Your task to perform on an android device: see creations saved in the google photos Image 0: 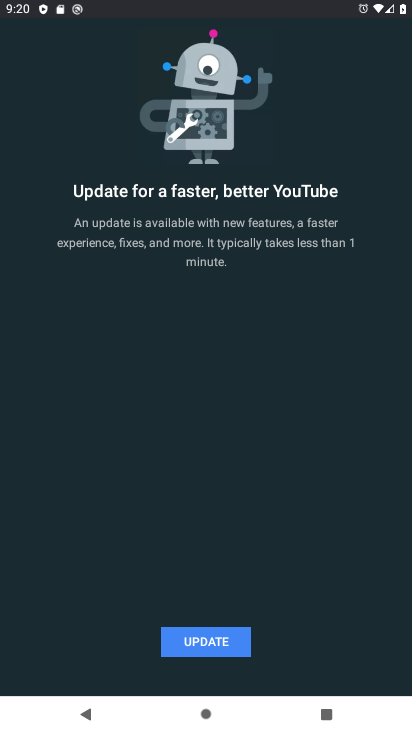
Step 0: press home button
Your task to perform on an android device: see creations saved in the google photos Image 1: 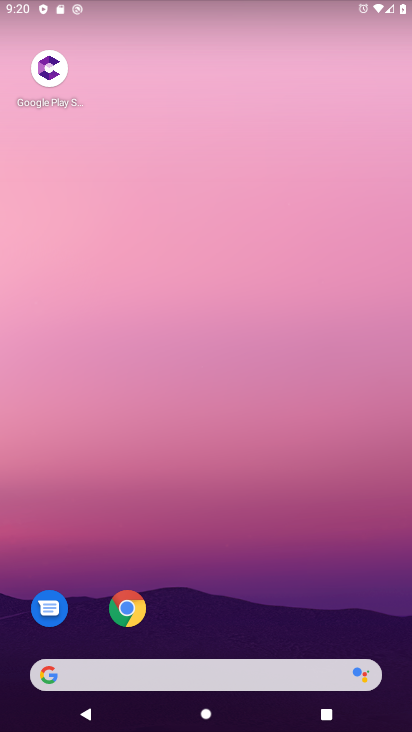
Step 1: drag from (270, 414) to (252, 9)
Your task to perform on an android device: see creations saved in the google photos Image 2: 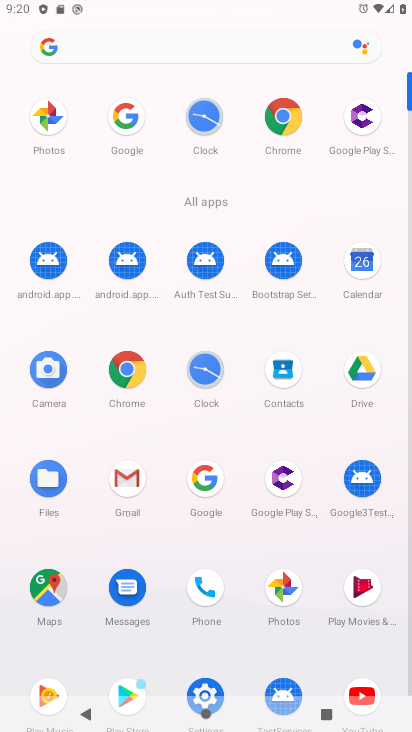
Step 2: click (283, 584)
Your task to perform on an android device: see creations saved in the google photos Image 3: 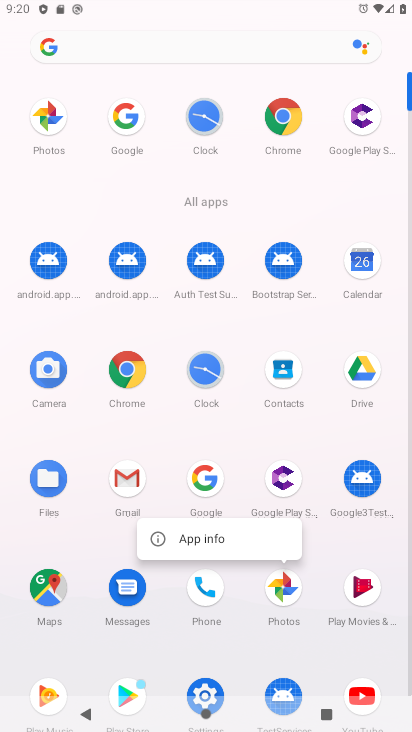
Step 3: click (302, 581)
Your task to perform on an android device: see creations saved in the google photos Image 4: 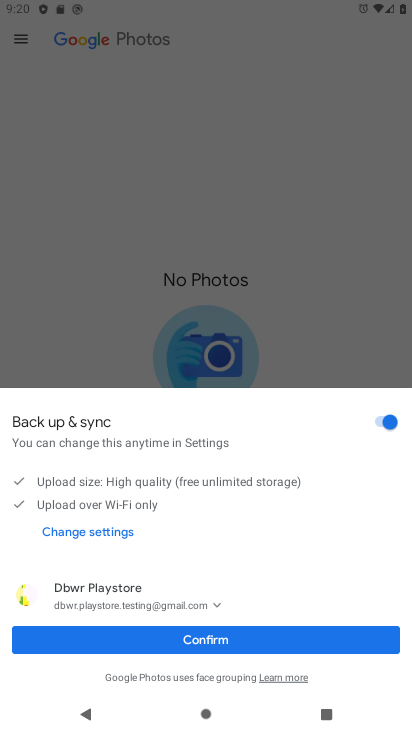
Step 4: click (261, 636)
Your task to perform on an android device: see creations saved in the google photos Image 5: 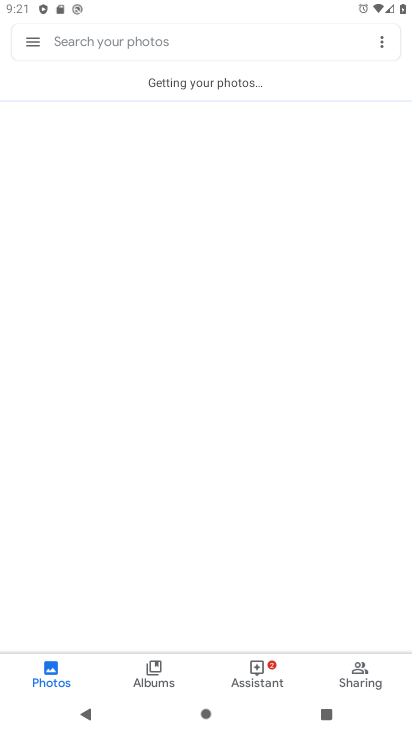
Step 5: click (103, 44)
Your task to perform on an android device: see creations saved in the google photos Image 6: 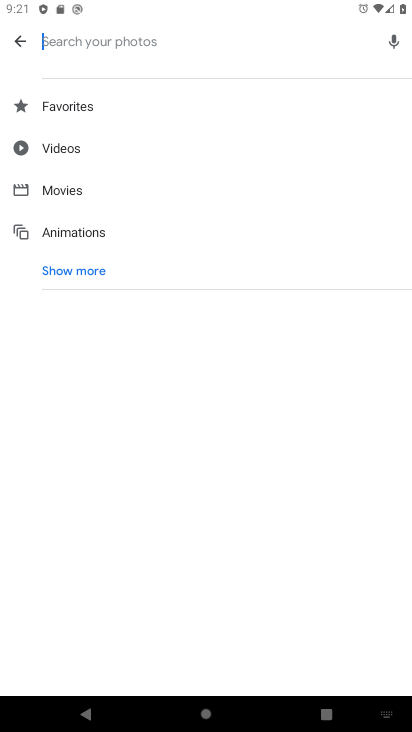
Step 6: type "creations"
Your task to perform on an android device: see creations saved in the google photos Image 7: 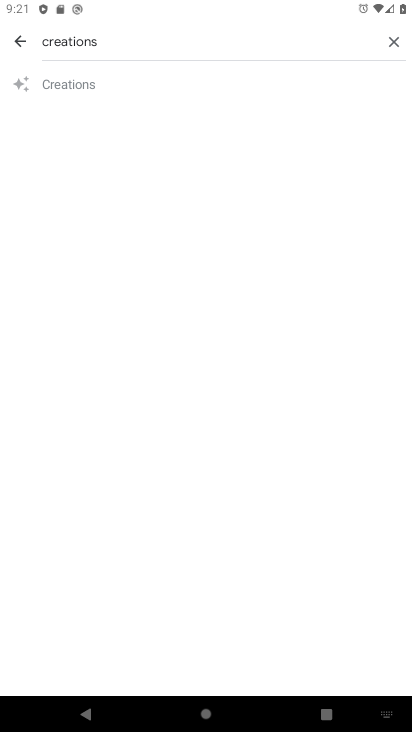
Step 7: click (94, 87)
Your task to perform on an android device: see creations saved in the google photos Image 8: 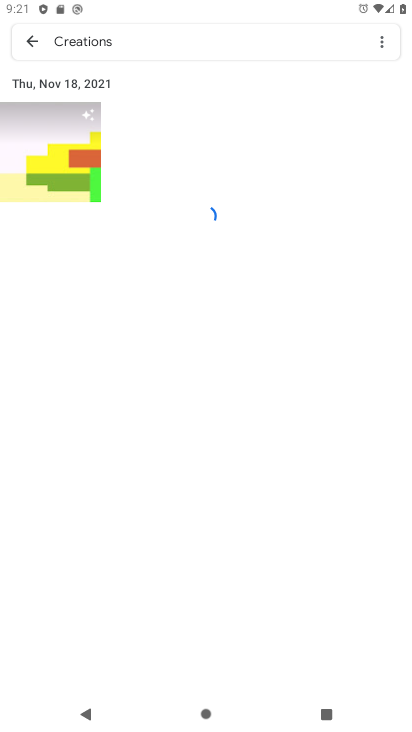
Step 8: task complete